Your task to perform on an android device: toggle priority inbox in the gmail app Image 0: 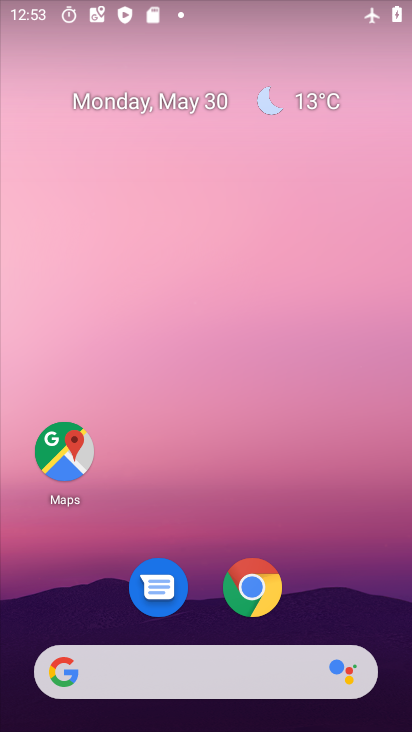
Step 0: drag from (327, 401) to (292, 62)
Your task to perform on an android device: toggle priority inbox in the gmail app Image 1: 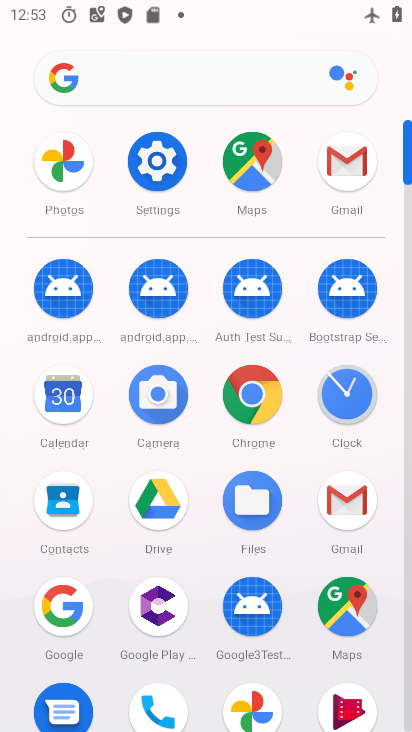
Step 1: click (339, 161)
Your task to perform on an android device: toggle priority inbox in the gmail app Image 2: 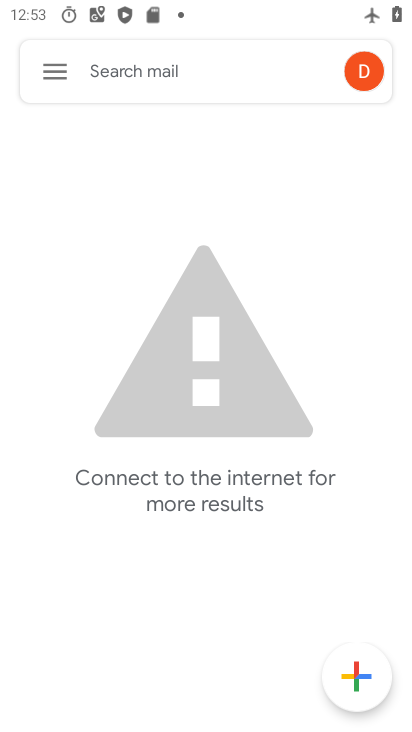
Step 2: click (47, 59)
Your task to perform on an android device: toggle priority inbox in the gmail app Image 3: 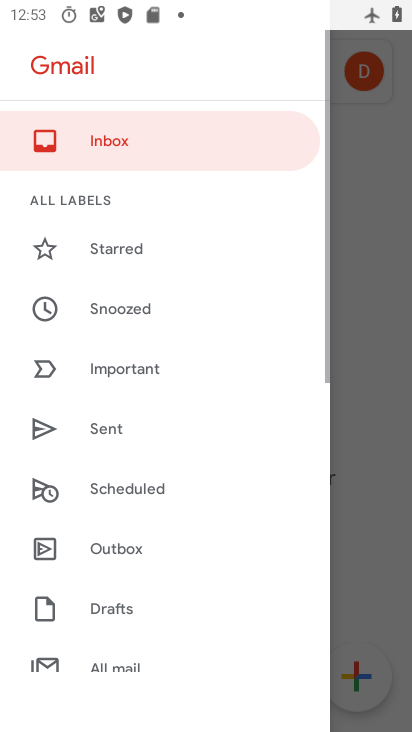
Step 3: drag from (105, 644) to (127, 130)
Your task to perform on an android device: toggle priority inbox in the gmail app Image 4: 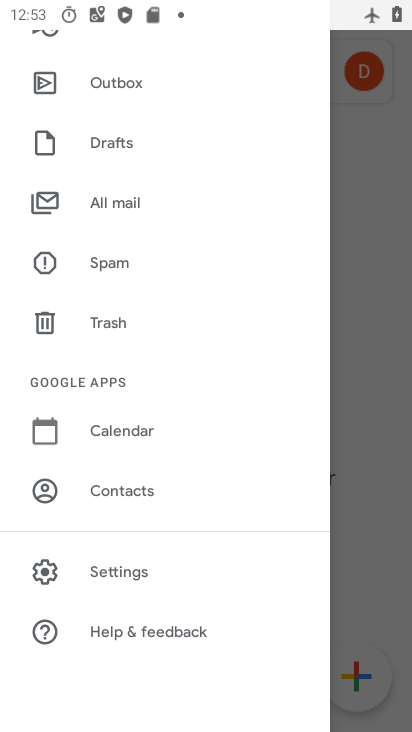
Step 4: click (131, 567)
Your task to perform on an android device: toggle priority inbox in the gmail app Image 5: 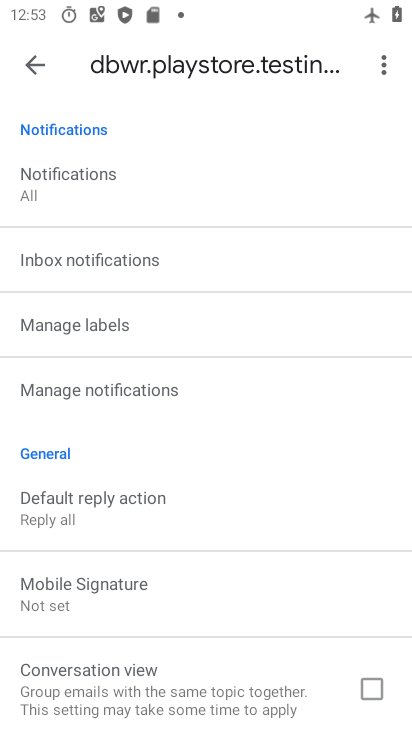
Step 5: drag from (266, 636) to (147, 75)
Your task to perform on an android device: toggle priority inbox in the gmail app Image 6: 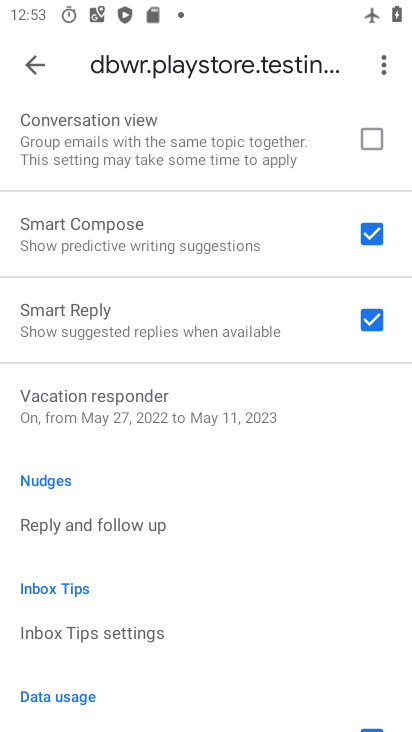
Step 6: drag from (224, 156) to (286, 729)
Your task to perform on an android device: toggle priority inbox in the gmail app Image 7: 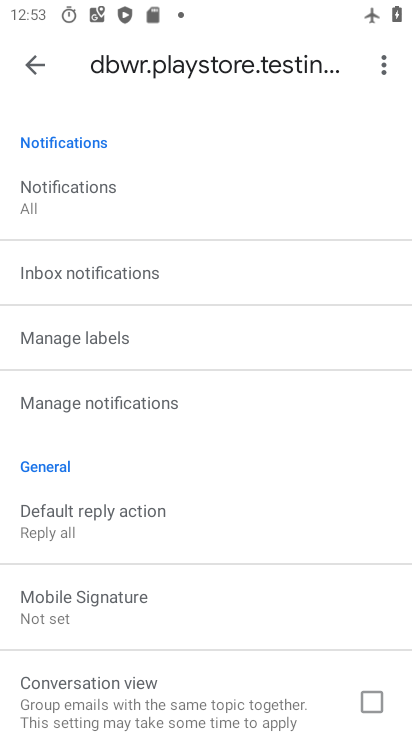
Step 7: drag from (127, 300) to (201, 727)
Your task to perform on an android device: toggle priority inbox in the gmail app Image 8: 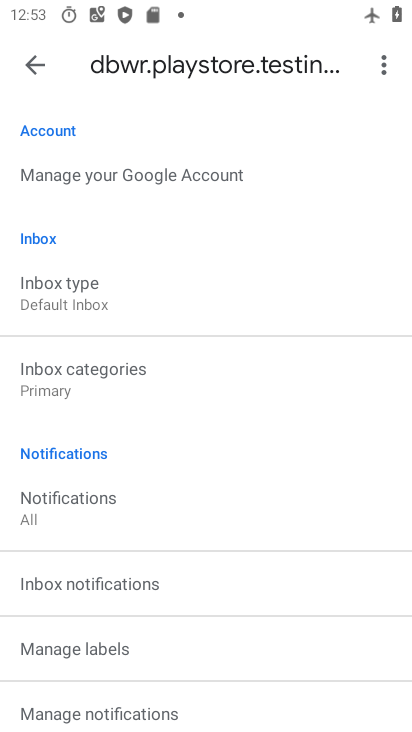
Step 8: click (75, 298)
Your task to perform on an android device: toggle priority inbox in the gmail app Image 9: 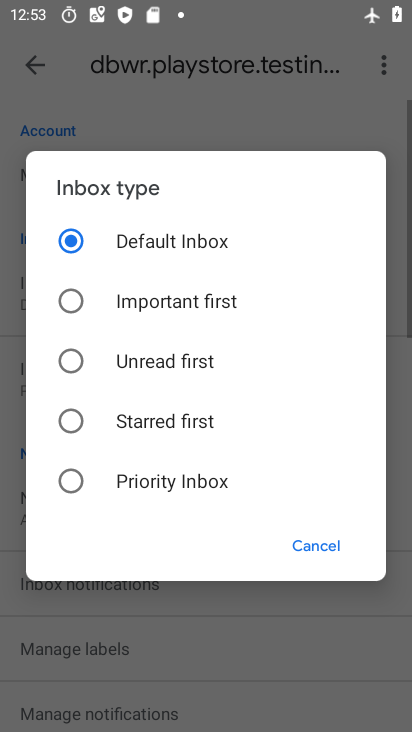
Step 9: click (166, 477)
Your task to perform on an android device: toggle priority inbox in the gmail app Image 10: 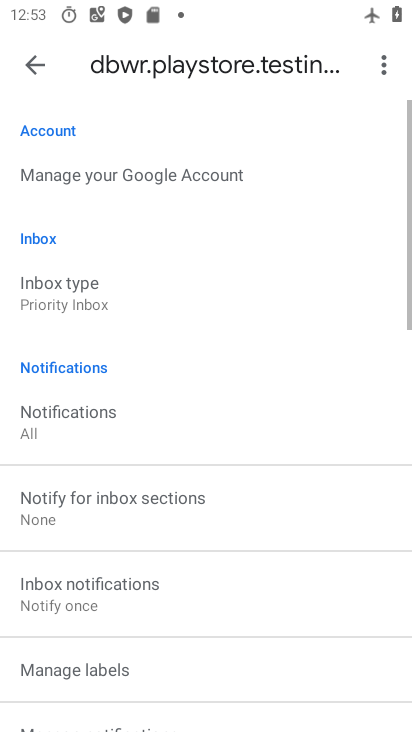
Step 10: task complete